Your task to perform on an android device: turn on javascript in the chrome app Image 0: 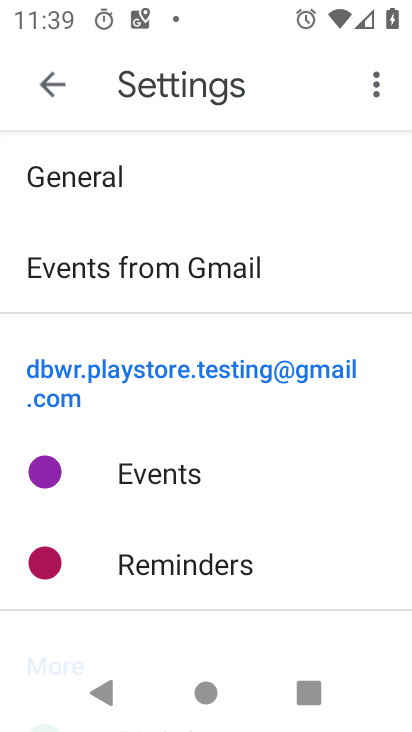
Step 0: press home button
Your task to perform on an android device: turn on javascript in the chrome app Image 1: 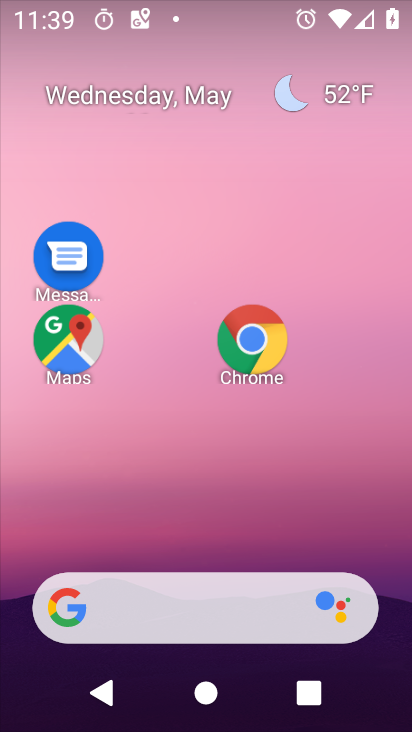
Step 1: click (249, 334)
Your task to perform on an android device: turn on javascript in the chrome app Image 2: 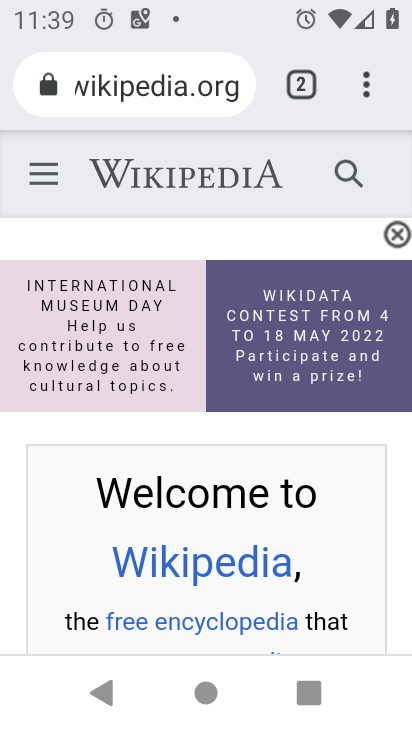
Step 2: click (355, 85)
Your task to perform on an android device: turn on javascript in the chrome app Image 3: 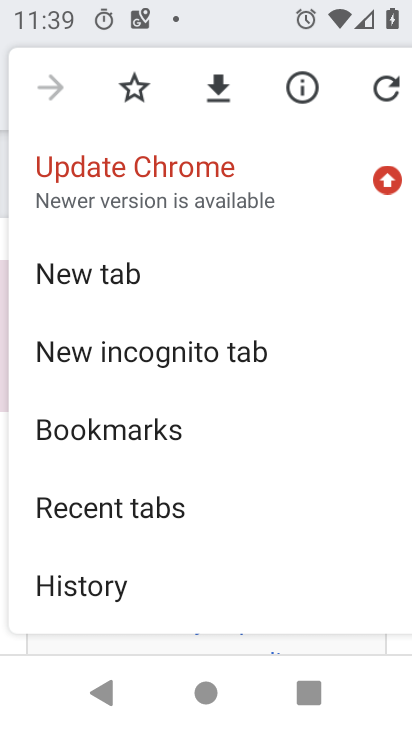
Step 3: drag from (178, 539) to (245, 84)
Your task to perform on an android device: turn on javascript in the chrome app Image 4: 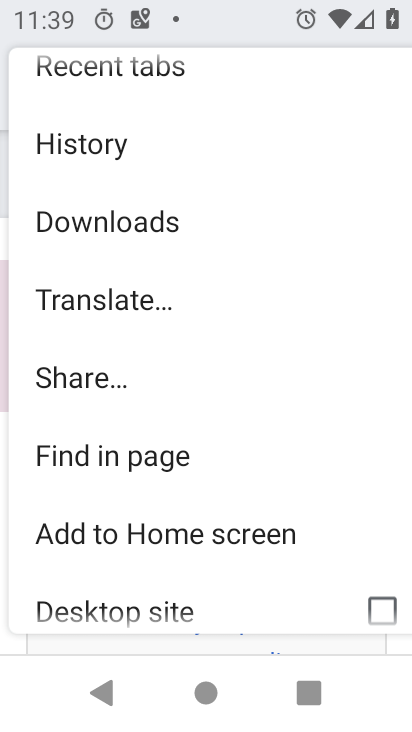
Step 4: drag from (210, 497) to (233, 129)
Your task to perform on an android device: turn on javascript in the chrome app Image 5: 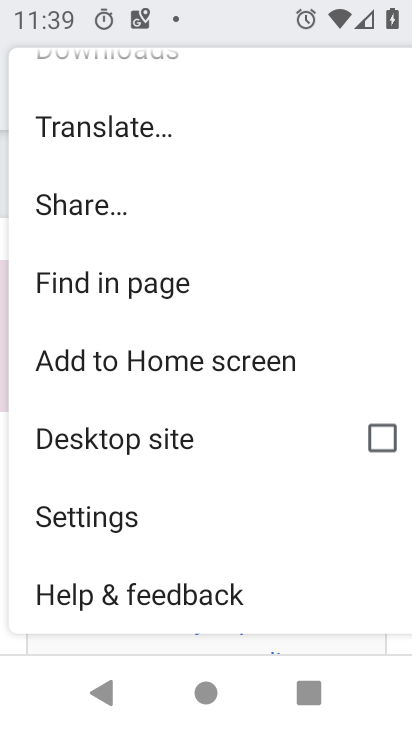
Step 5: click (107, 517)
Your task to perform on an android device: turn on javascript in the chrome app Image 6: 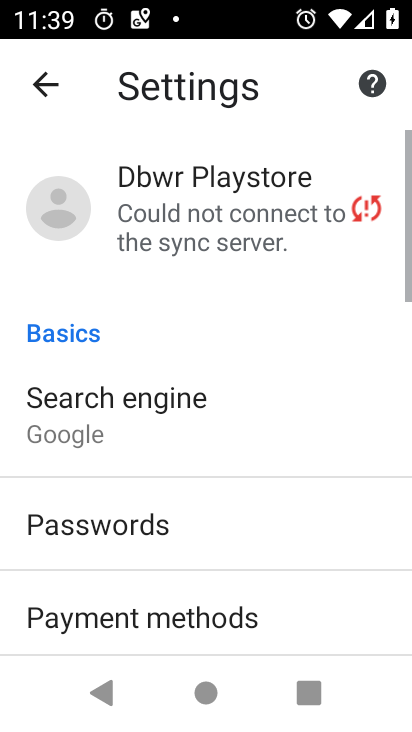
Step 6: drag from (253, 539) to (255, 175)
Your task to perform on an android device: turn on javascript in the chrome app Image 7: 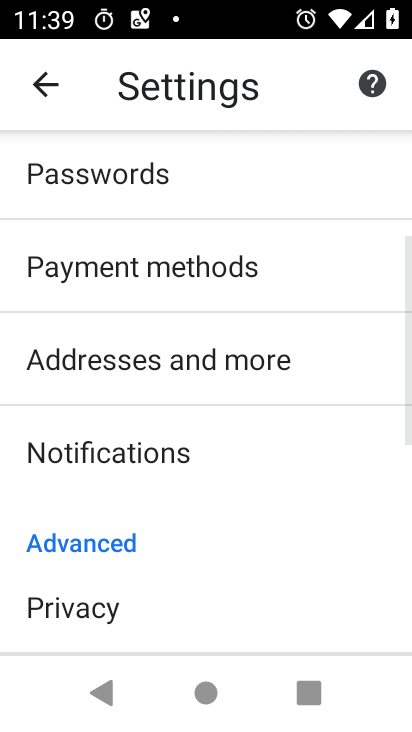
Step 7: drag from (192, 589) to (215, 240)
Your task to perform on an android device: turn on javascript in the chrome app Image 8: 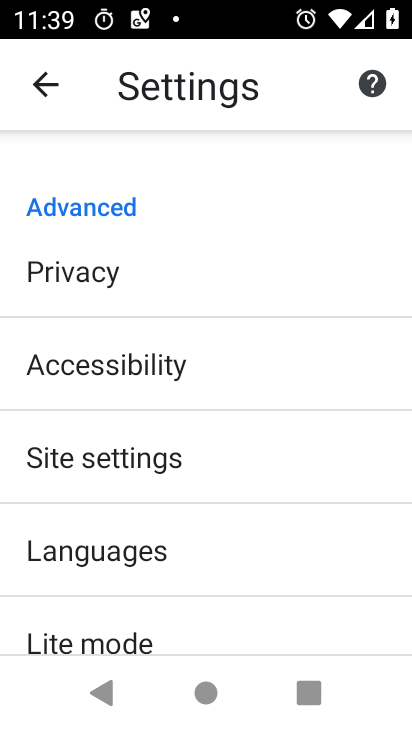
Step 8: drag from (167, 587) to (178, 400)
Your task to perform on an android device: turn on javascript in the chrome app Image 9: 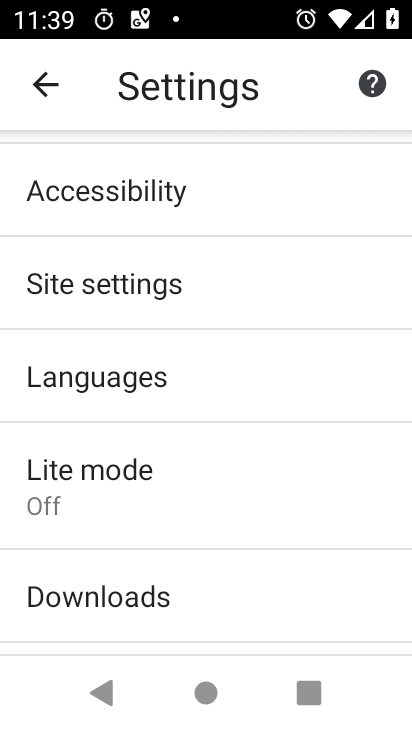
Step 9: click (102, 278)
Your task to perform on an android device: turn on javascript in the chrome app Image 10: 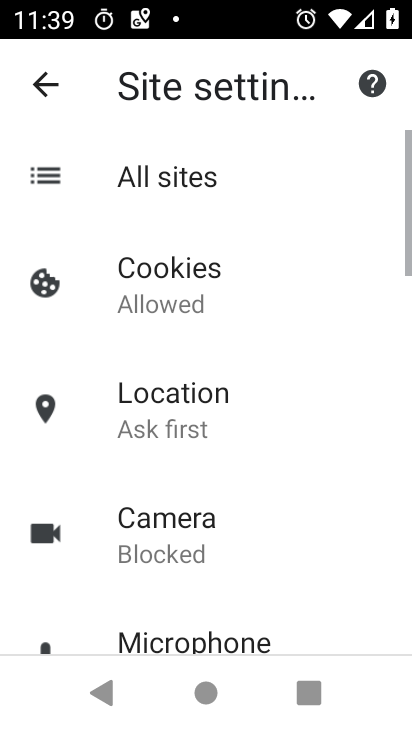
Step 10: drag from (245, 563) to (230, 220)
Your task to perform on an android device: turn on javascript in the chrome app Image 11: 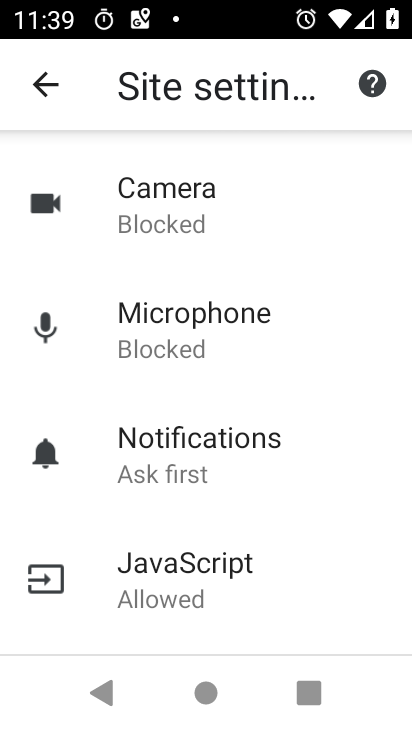
Step 11: click (113, 580)
Your task to perform on an android device: turn on javascript in the chrome app Image 12: 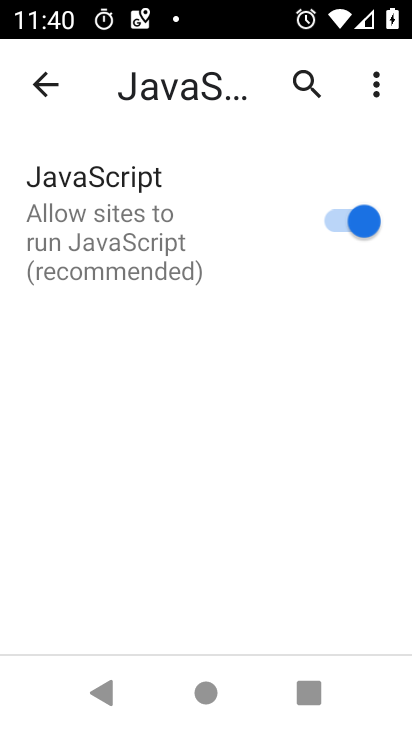
Step 12: task complete